Your task to perform on an android device: Open Google Chrome and open the bookmarks view Image 0: 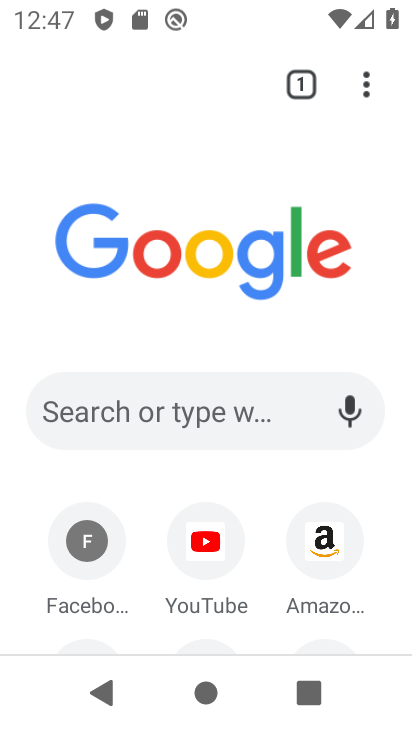
Step 0: click (368, 82)
Your task to perform on an android device: Open Google Chrome and open the bookmarks view Image 1: 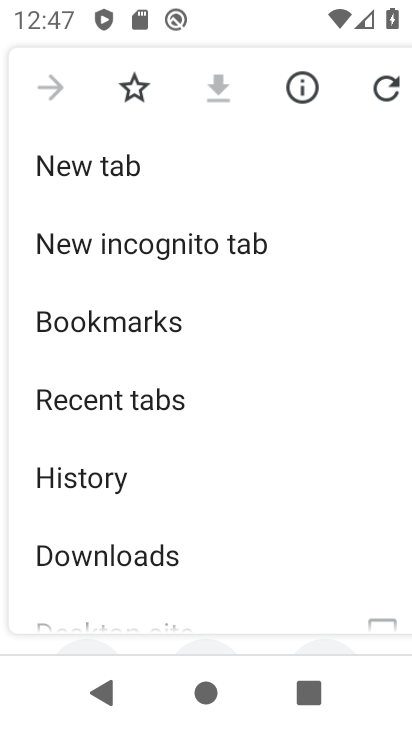
Step 1: click (136, 326)
Your task to perform on an android device: Open Google Chrome and open the bookmarks view Image 2: 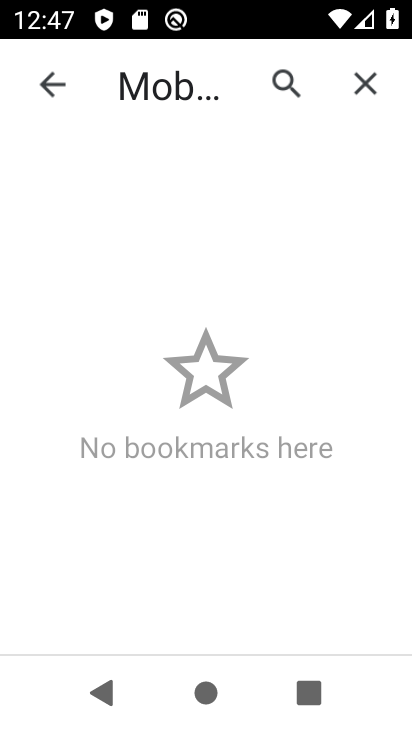
Step 2: task complete